Your task to perform on an android device: check android version Image 0: 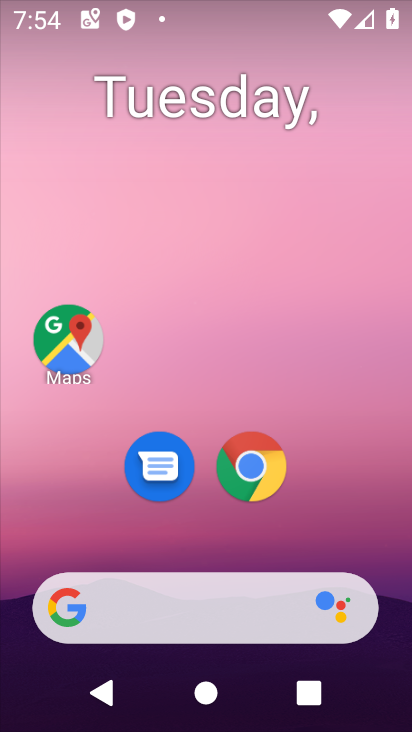
Step 0: press home button
Your task to perform on an android device: check android version Image 1: 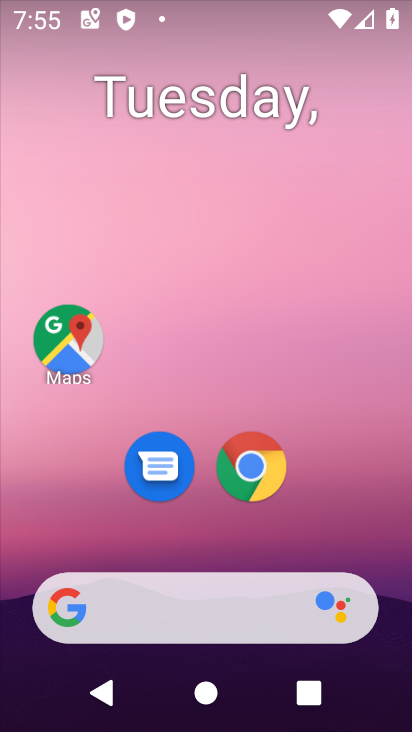
Step 1: drag from (211, 550) to (220, 68)
Your task to perform on an android device: check android version Image 2: 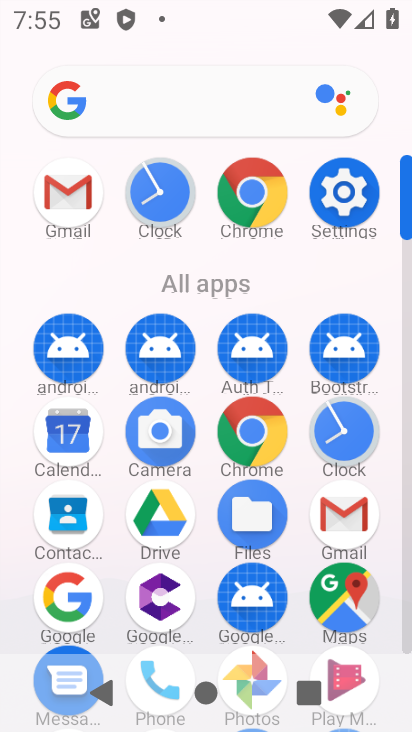
Step 2: click (344, 190)
Your task to perform on an android device: check android version Image 3: 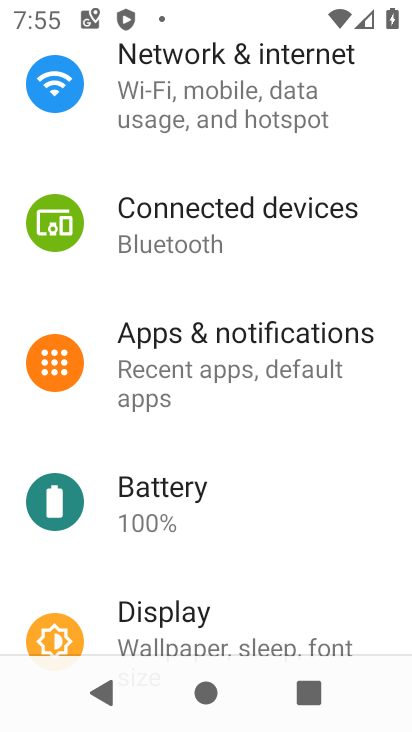
Step 3: drag from (230, 587) to (235, 156)
Your task to perform on an android device: check android version Image 4: 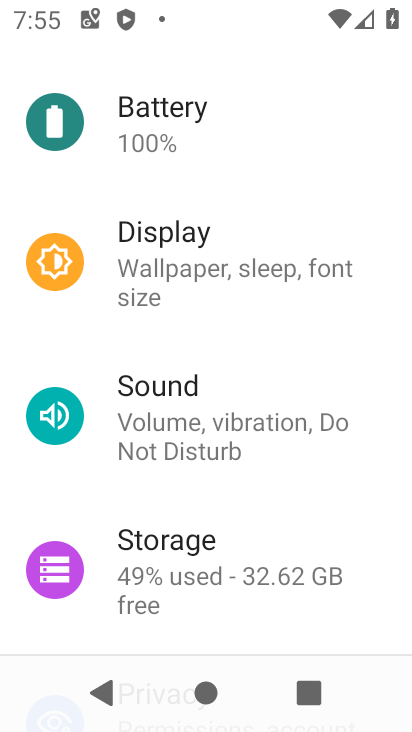
Step 4: drag from (192, 621) to (224, 177)
Your task to perform on an android device: check android version Image 5: 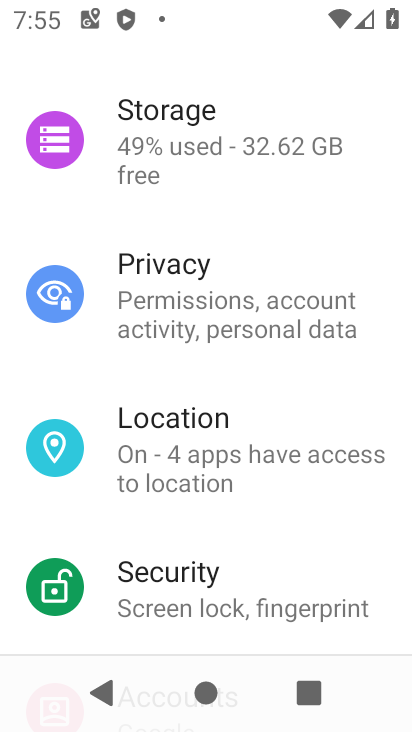
Step 5: drag from (202, 611) to (235, 155)
Your task to perform on an android device: check android version Image 6: 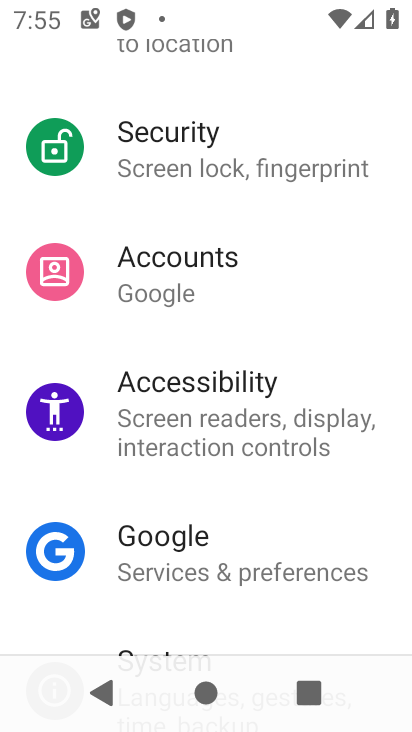
Step 6: drag from (198, 585) to (235, 159)
Your task to perform on an android device: check android version Image 7: 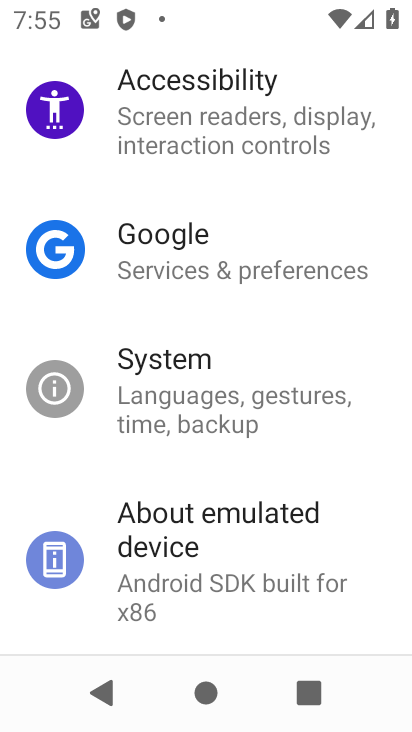
Step 7: click (226, 564)
Your task to perform on an android device: check android version Image 8: 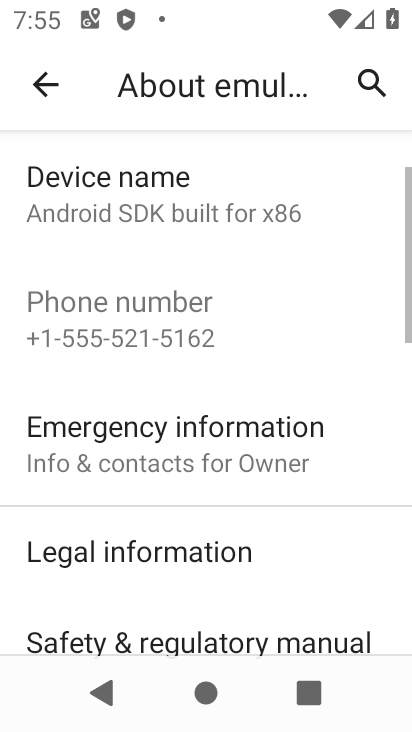
Step 8: drag from (211, 597) to (240, 223)
Your task to perform on an android device: check android version Image 9: 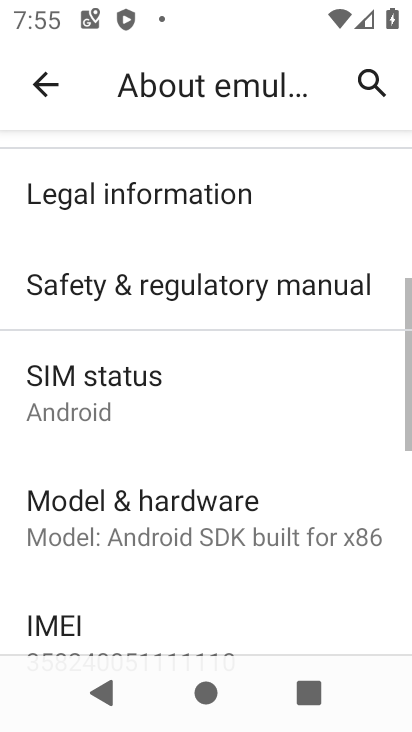
Step 9: drag from (181, 610) to (212, 246)
Your task to perform on an android device: check android version Image 10: 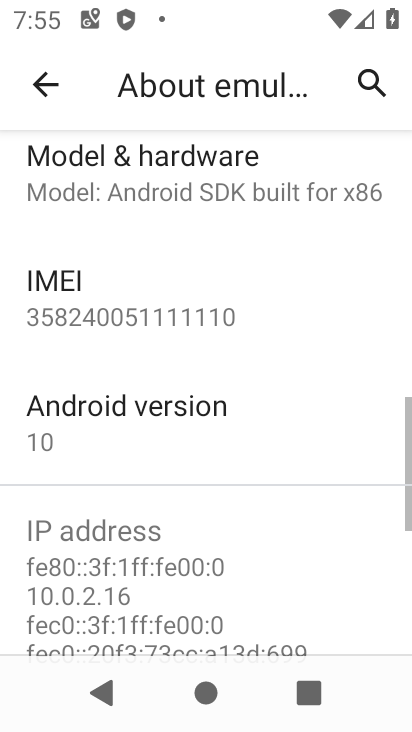
Step 10: click (164, 444)
Your task to perform on an android device: check android version Image 11: 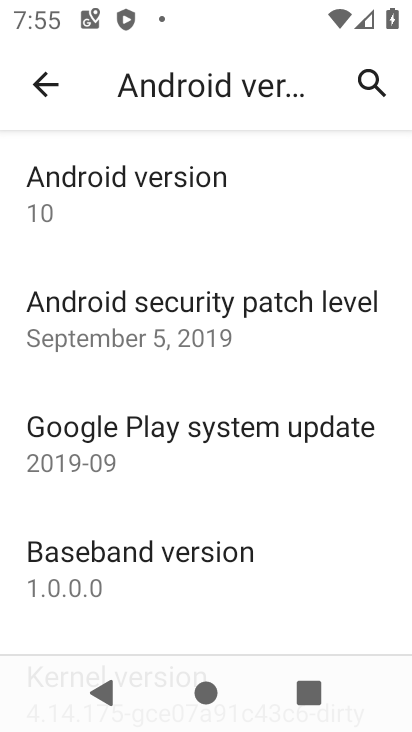
Step 11: task complete